Your task to perform on an android device: Show me productivity apps on the Play Store Image 0: 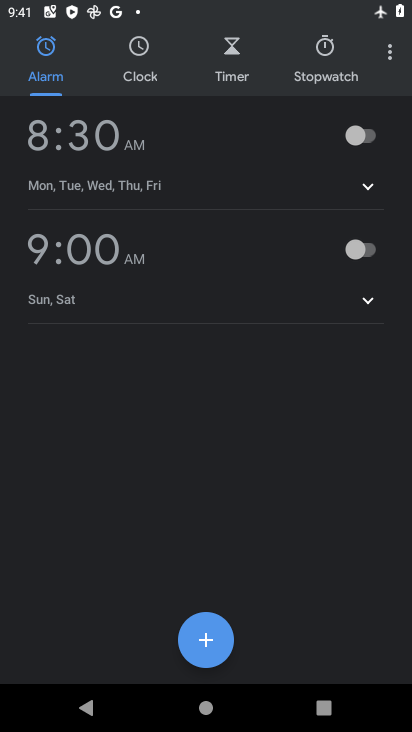
Step 0: press home button
Your task to perform on an android device: Show me productivity apps on the Play Store Image 1: 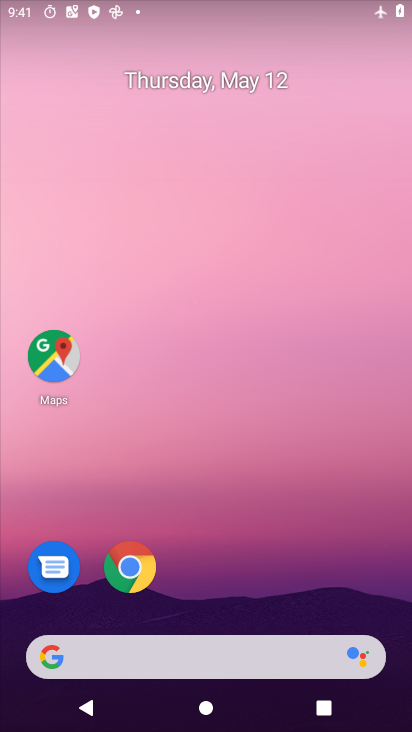
Step 1: drag from (195, 641) to (196, 243)
Your task to perform on an android device: Show me productivity apps on the Play Store Image 2: 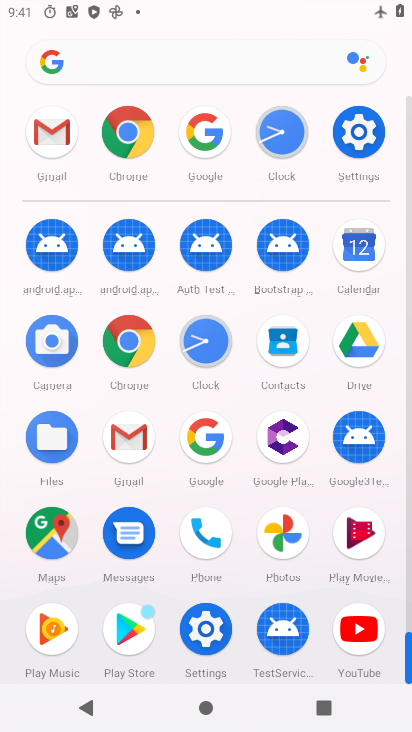
Step 2: drag from (234, 532) to (232, 300)
Your task to perform on an android device: Show me productivity apps on the Play Store Image 3: 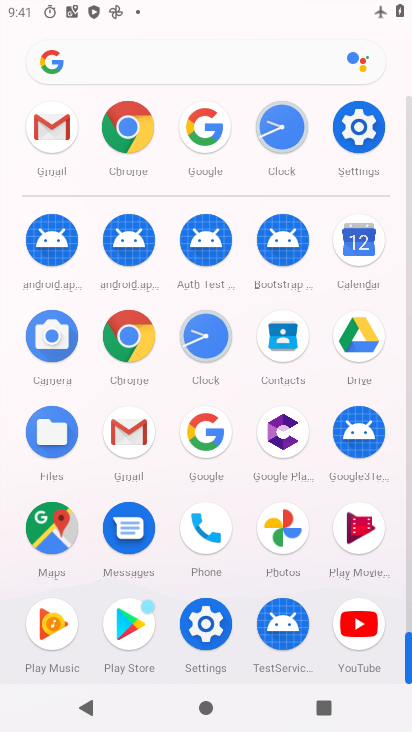
Step 3: click (126, 638)
Your task to perform on an android device: Show me productivity apps on the Play Store Image 4: 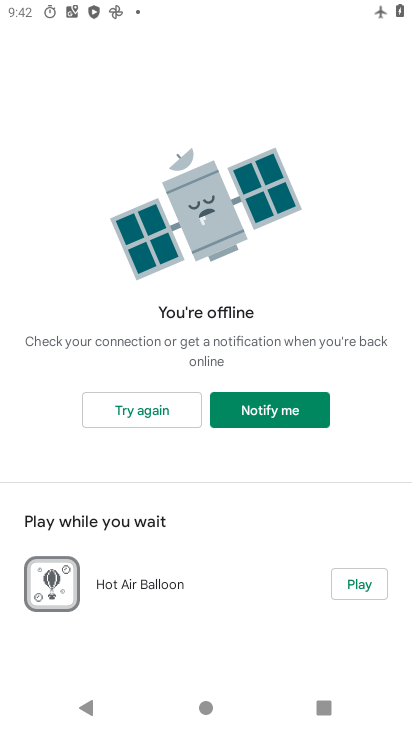
Step 4: task complete